Your task to perform on an android device: make emails show in primary in the gmail app Image 0: 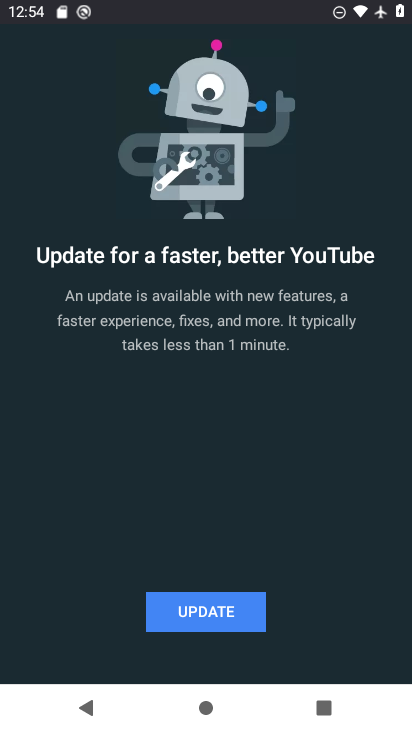
Step 0: press home button
Your task to perform on an android device: make emails show in primary in the gmail app Image 1: 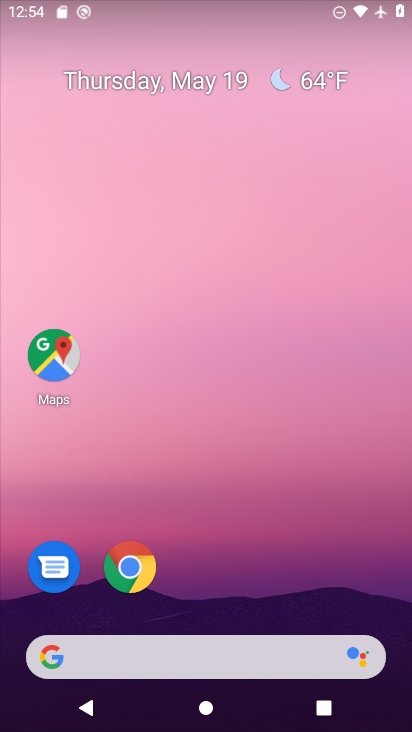
Step 1: drag from (228, 575) to (318, 135)
Your task to perform on an android device: make emails show in primary in the gmail app Image 2: 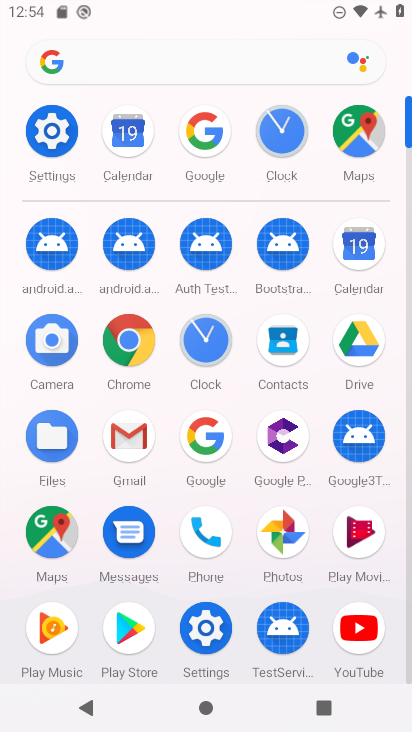
Step 2: click (121, 441)
Your task to perform on an android device: make emails show in primary in the gmail app Image 3: 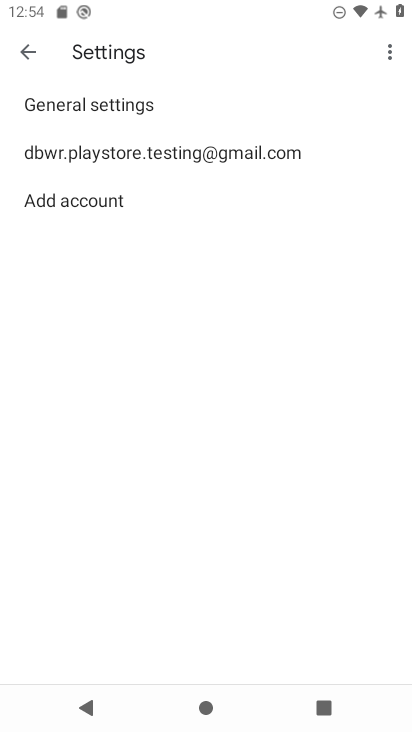
Step 3: press back button
Your task to perform on an android device: make emails show in primary in the gmail app Image 4: 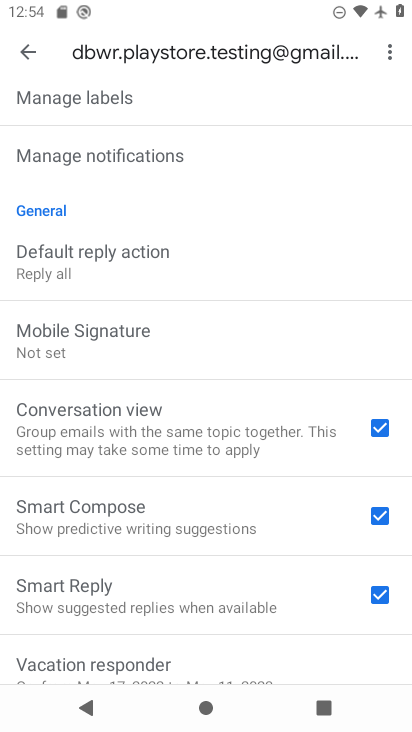
Step 4: press back button
Your task to perform on an android device: make emails show in primary in the gmail app Image 5: 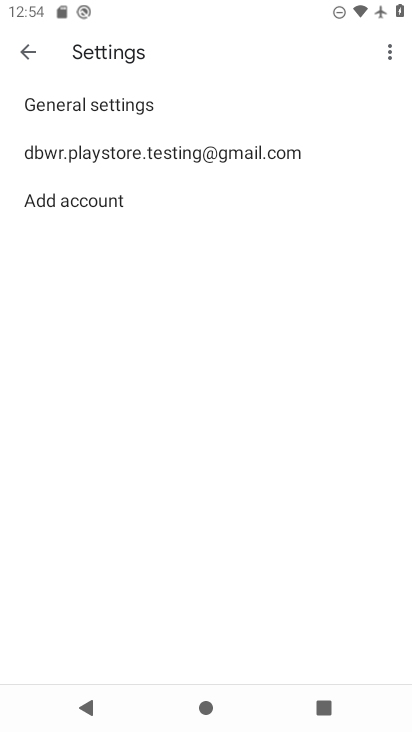
Step 5: press back button
Your task to perform on an android device: make emails show in primary in the gmail app Image 6: 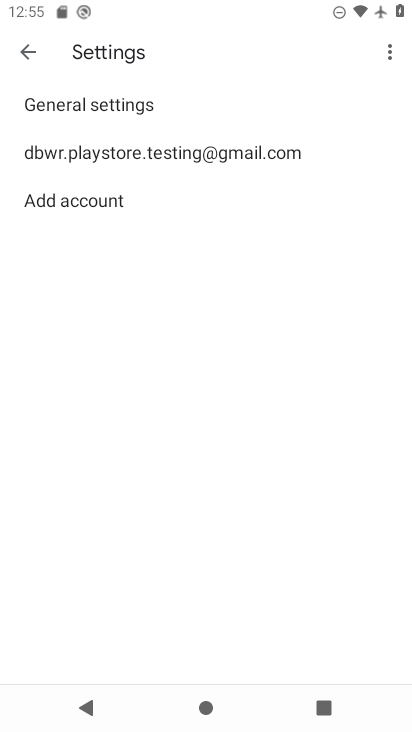
Step 6: press back button
Your task to perform on an android device: make emails show in primary in the gmail app Image 7: 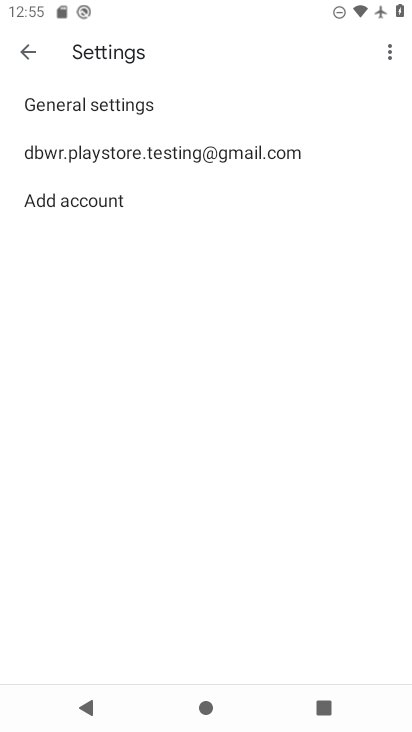
Step 7: press back button
Your task to perform on an android device: make emails show in primary in the gmail app Image 8: 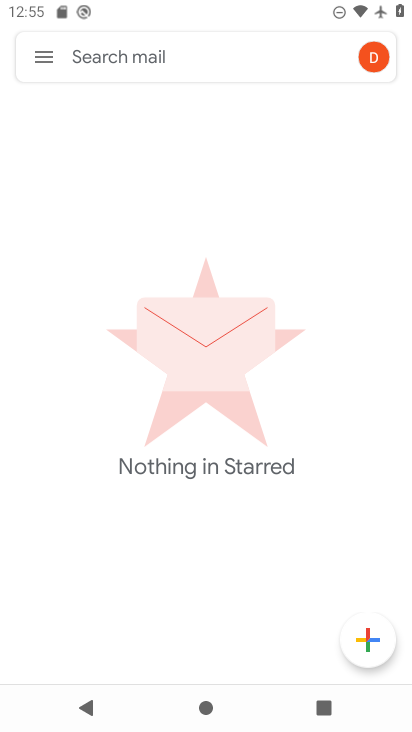
Step 8: click (44, 58)
Your task to perform on an android device: make emails show in primary in the gmail app Image 9: 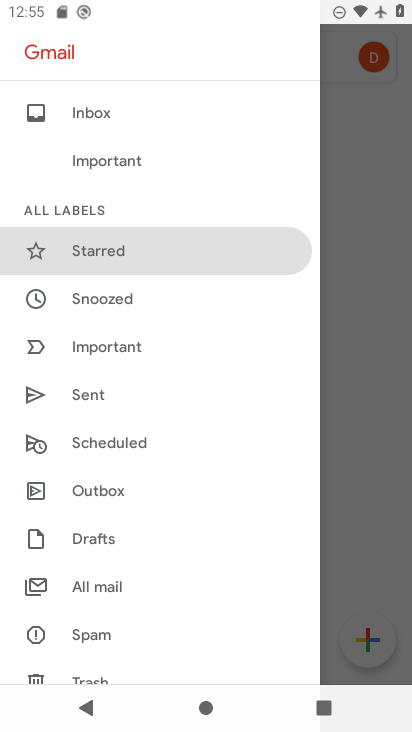
Step 9: drag from (131, 673) to (177, 187)
Your task to perform on an android device: make emails show in primary in the gmail app Image 10: 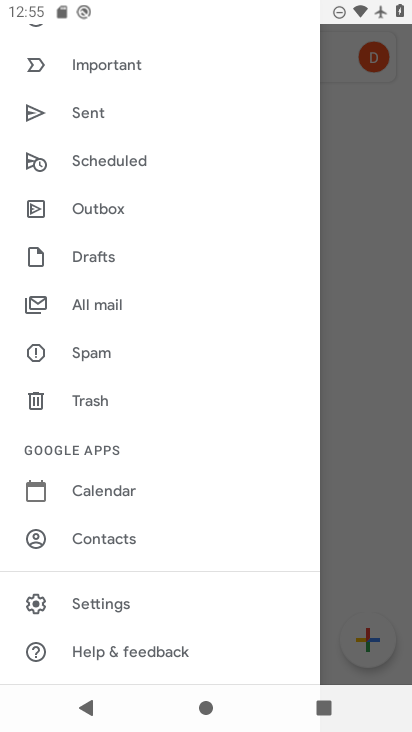
Step 10: click (129, 608)
Your task to perform on an android device: make emails show in primary in the gmail app Image 11: 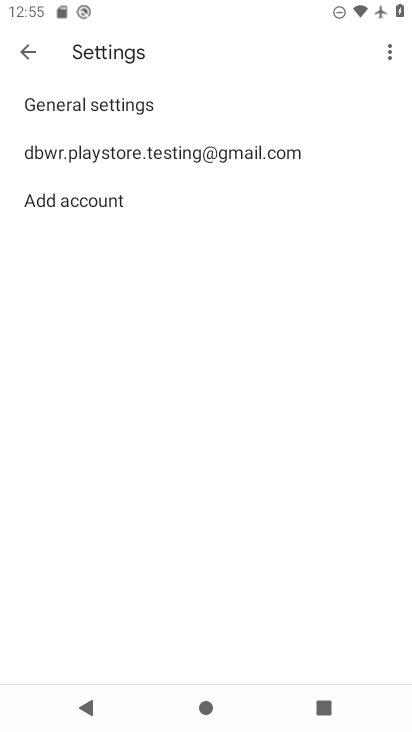
Step 11: click (138, 154)
Your task to perform on an android device: make emails show in primary in the gmail app Image 12: 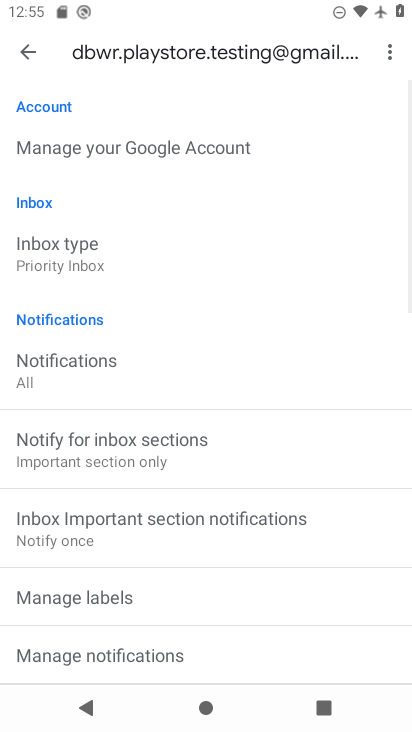
Step 12: click (96, 256)
Your task to perform on an android device: make emails show in primary in the gmail app Image 13: 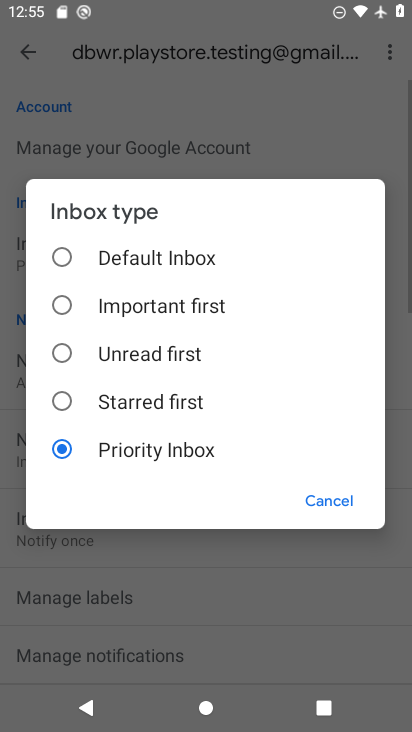
Step 13: click (117, 260)
Your task to perform on an android device: make emails show in primary in the gmail app Image 14: 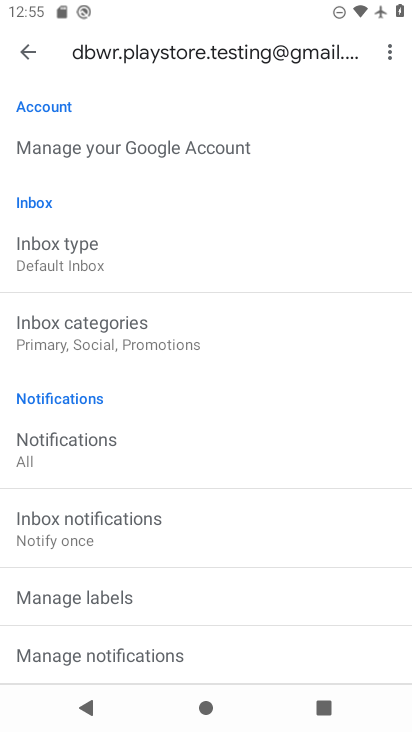
Step 14: press back button
Your task to perform on an android device: make emails show in primary in the gmail app Image 15: 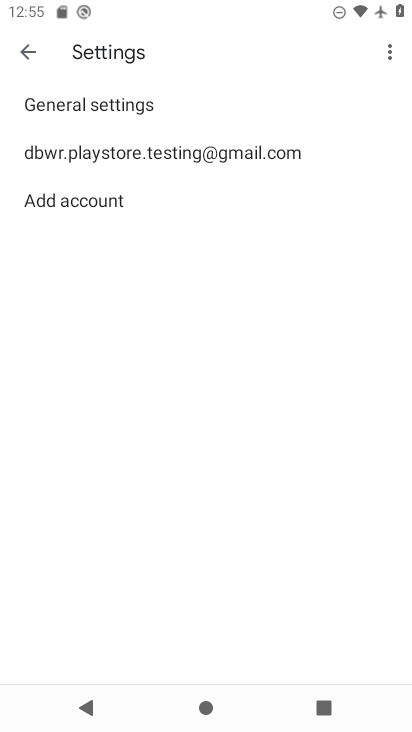
Step 15: press back button
Your task to perform on an android device: make emails show in primary in the gmail app Image 16: 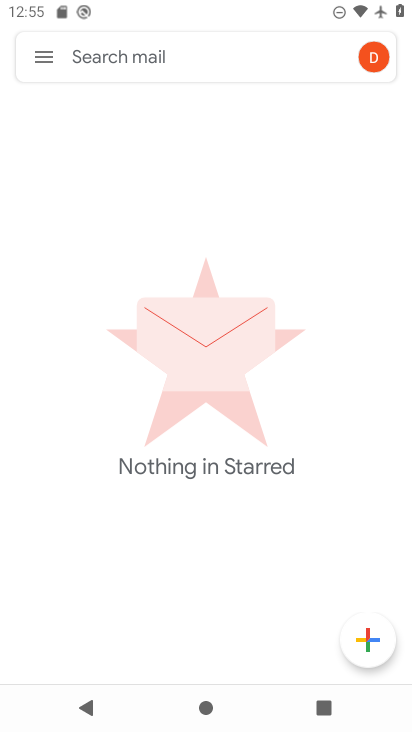
Step 16: click (37, 65)
Your task to perform on an android device: make emails show in primary in the gmail app Image 17: 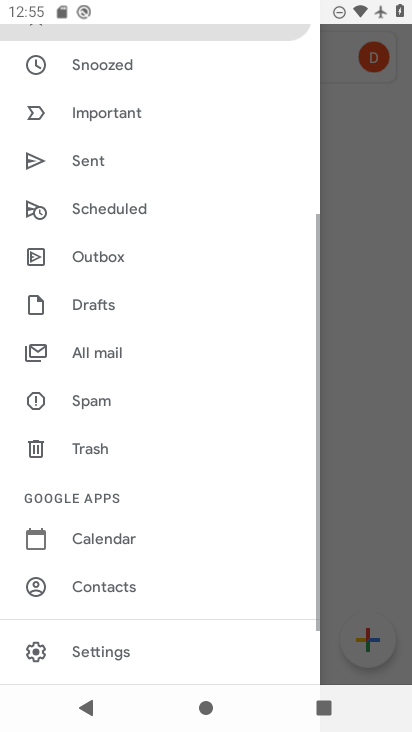
Step 17: drag from (131, 114) to (160, 670)
Your task to perform on an android device: make emails show in primary in the gmail app Image 18: 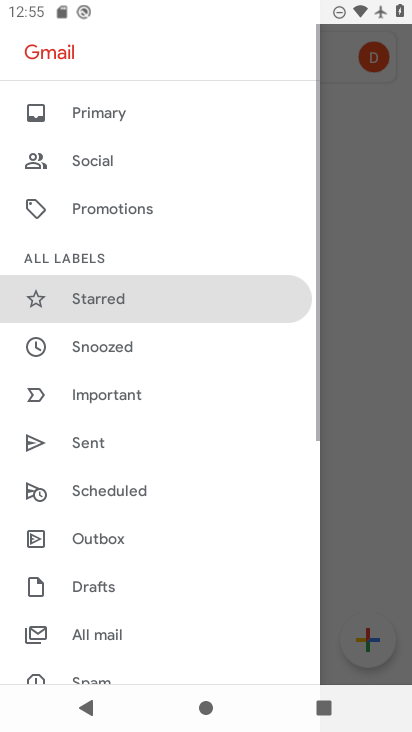
Step 18: click (168, 111)
Your task to perform on an android device: make emails show in primary in the gmail app Image 19: 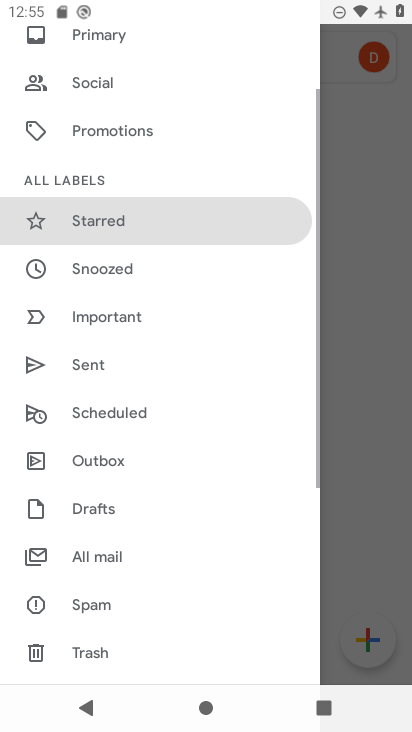
Step 19: click (140, 114)
Your task to perform on an android device: make emails show in primary in the gmail app Image 20: 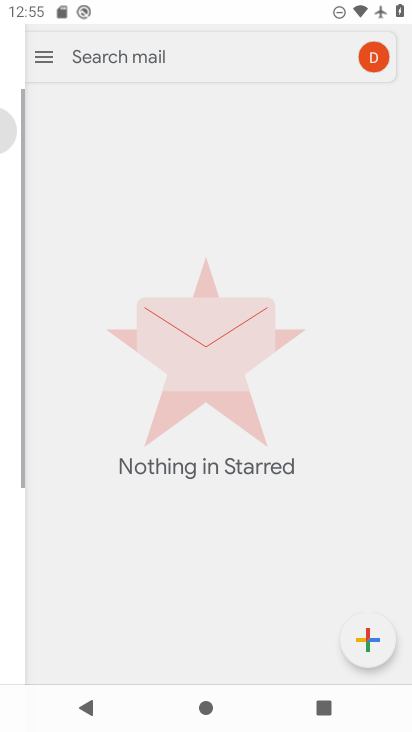
Step 20: drag from (140, 113) to (130, 410)
Your task to perform on an android device: make emails show in primary in the gmail app Image 21: 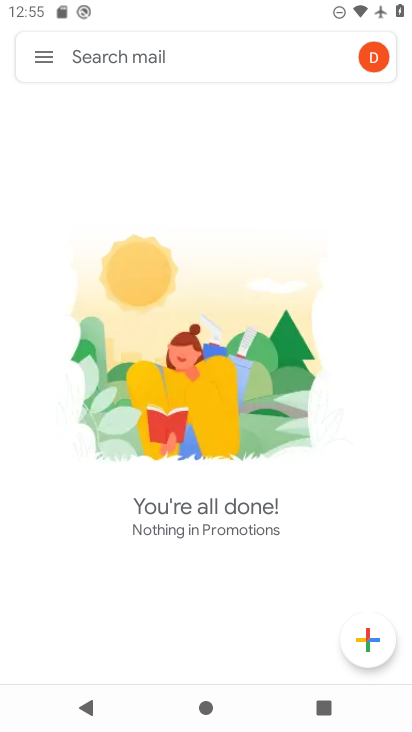
Step 21: press back button
Your task to perform on an android device: make emails show in primary in the gmail app Image 22: 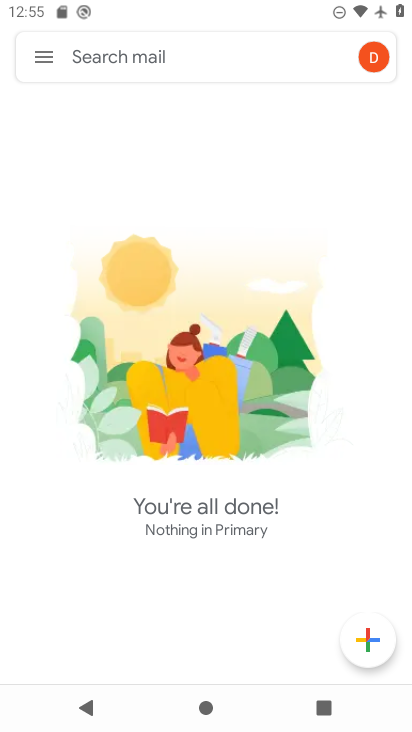
Step 22: click (47, 55)
Your task to perform on an android device: make emails show in primary in the gmail app Image 23: 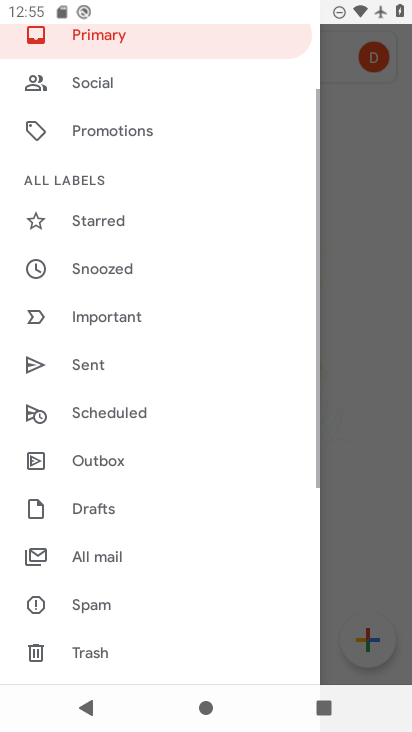
Step 23: click (135, 51)
Your task to perform on an android device: make emails show in primary in the gmail app Image 24: 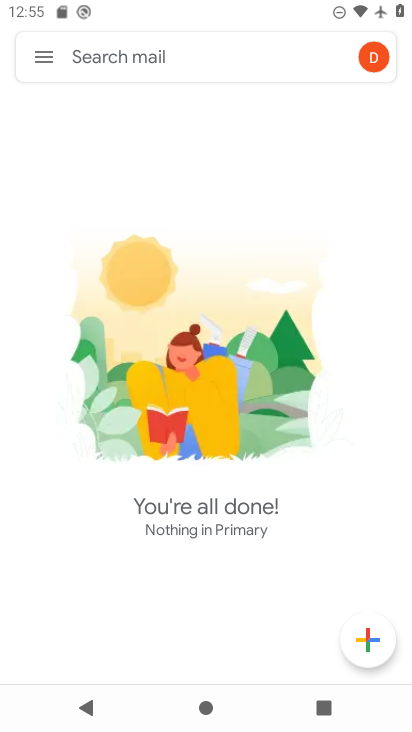
Step 24: task complete